Your task to perform on an android device: Go to battery settings Image 0: 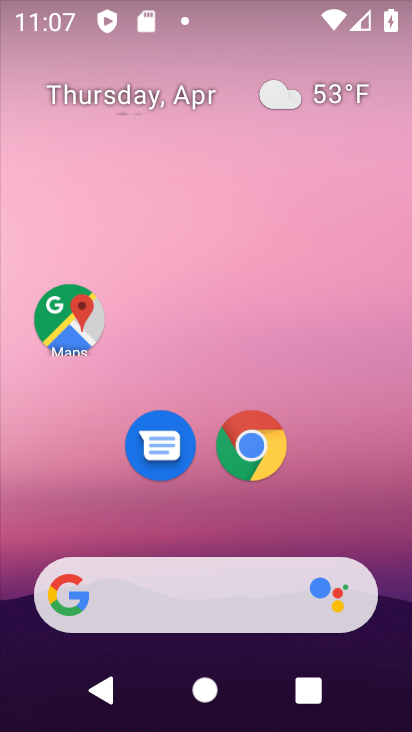
Step 0: drag from (170, 601) to (296, 164)
Your task to perform on an android device: Go to battery settings Image 1: 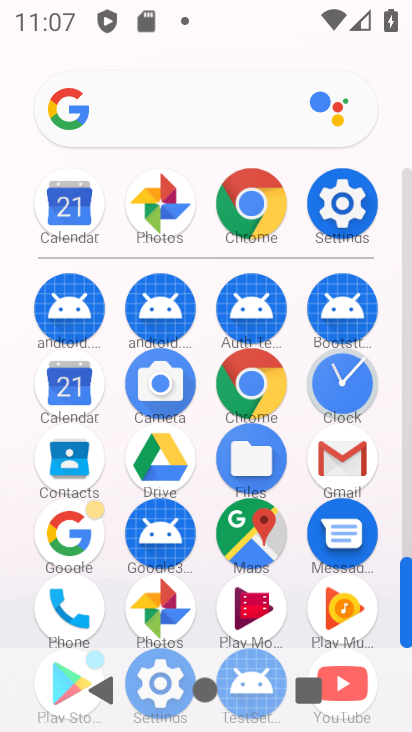
Step 1: click (350, 222)
Your task to perform on an android device: Go to battery settings Image 2: 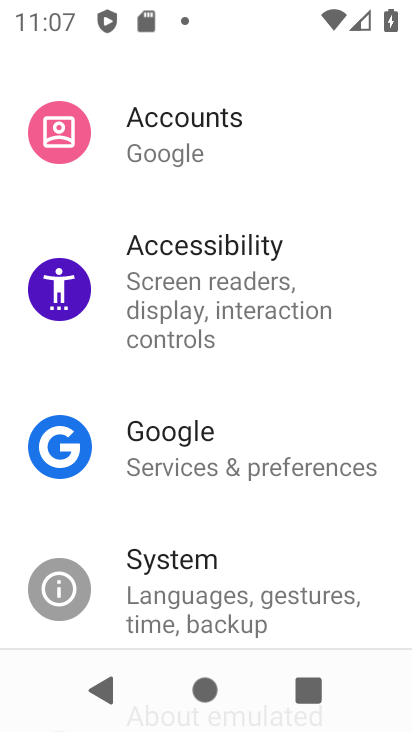
Step 2: drag from (271, 169) to (172, 565)
Your task to perform on an android device: Go to battery settings Image 3: 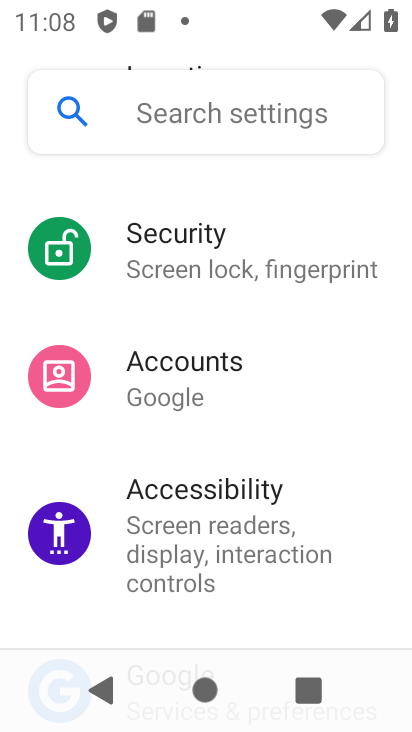
Step 3: drag from (152, 548) to (303, 199)
Your task to perform on an android device: Go to battery settings Image 4: 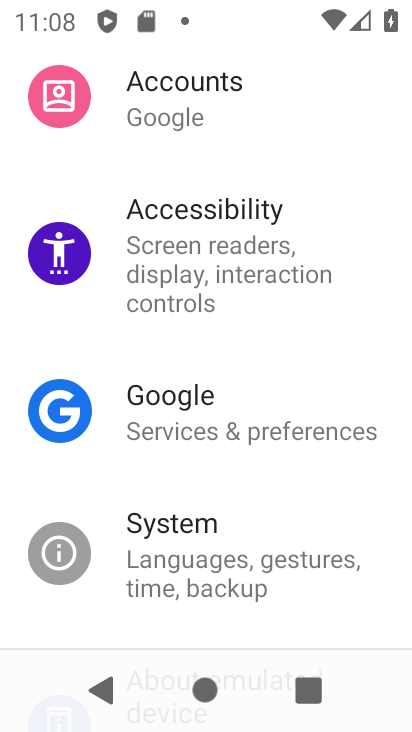
Step 4: drag from (185, 574) to (344, 155)
Your task to perform on an android device: Go to battery settings Image 5: 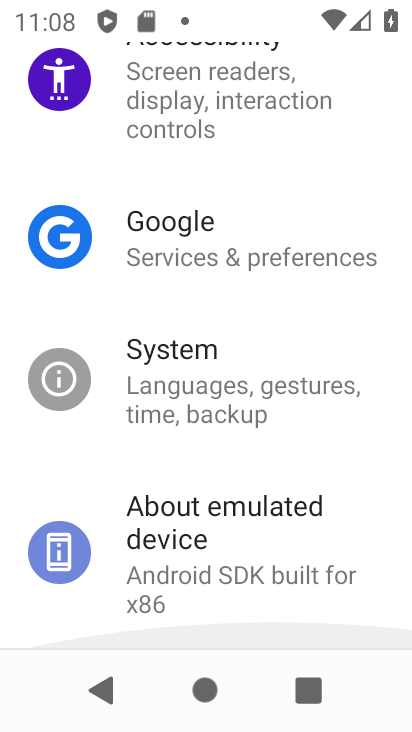
Step 5: drag from (258, 163) to (154, 731)
Your task to perform on an android device: Go to battery settings Image 6: 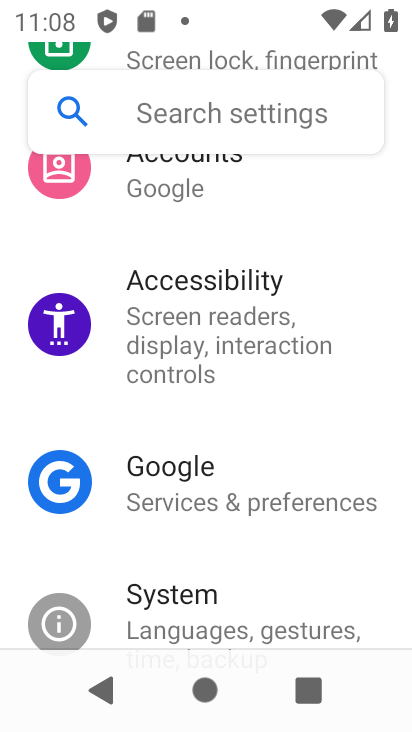
Step 6: drag from (267, 184) to (129, 722)
Your task to perform on an android device: Go to battery settings Image 7: 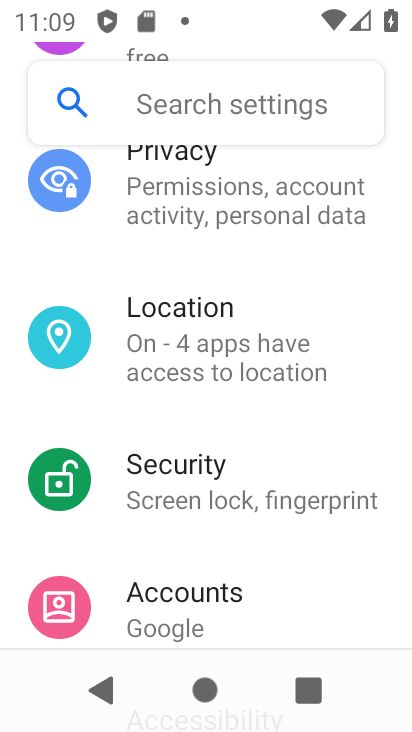
Step 7: drag from (225, 230) to (165, 644)
Your task to perform on an android device: Go to battery settings Image 8: 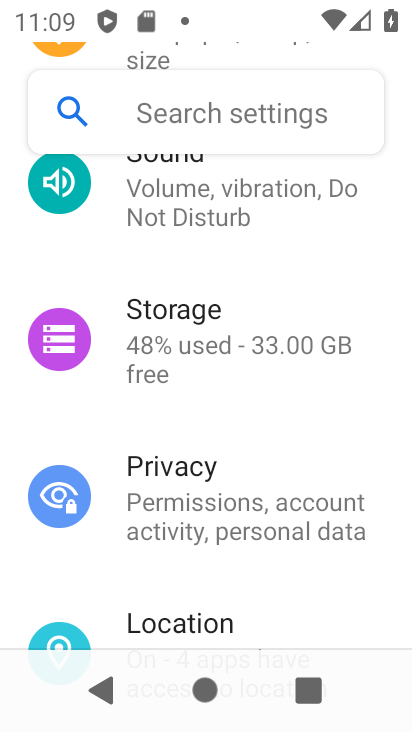
Step 8: drag from (213, 246) to (215, 685)
Your task to perform on an android device: Go to battery settings Image 9: 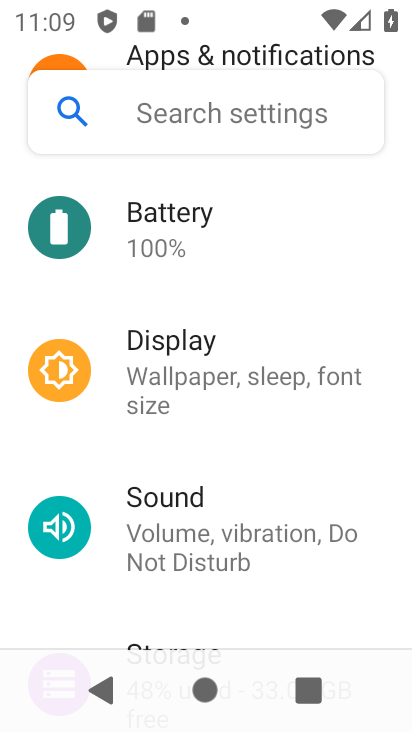
Step 9: click (179, 227)
Your task to perform on an android device: Go to battery settings Image 10: 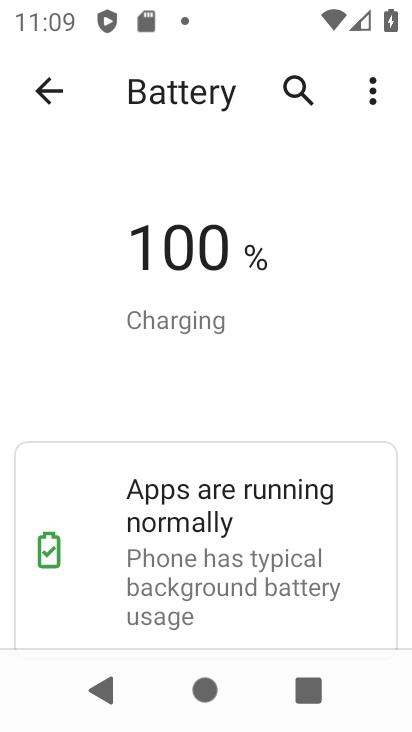
Step 10: task complete